Your task to perform on an android device: check google app version Image 0: 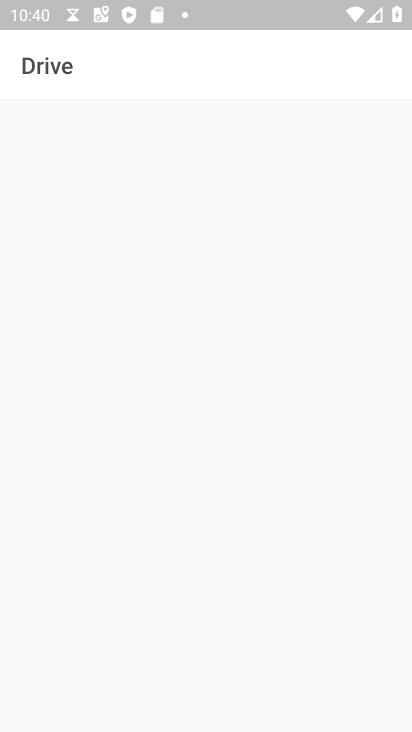
Step 0: press home button
Your task to perform on an android device: check google app version Image 1: 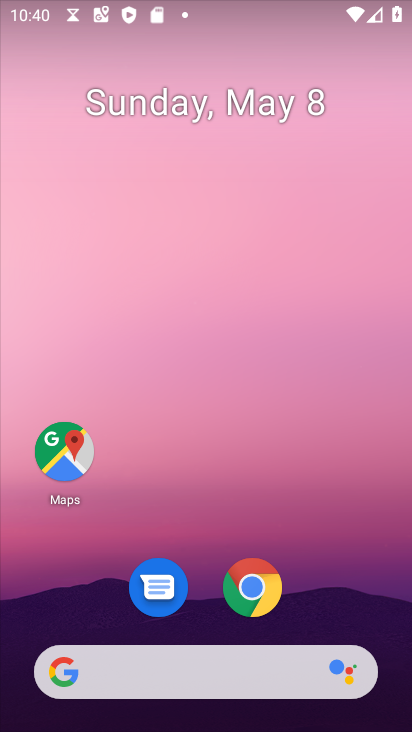
Step 1: drag from (337, 577) to (144, 184)
Your task to perform on an android device: check google app version Image 2: 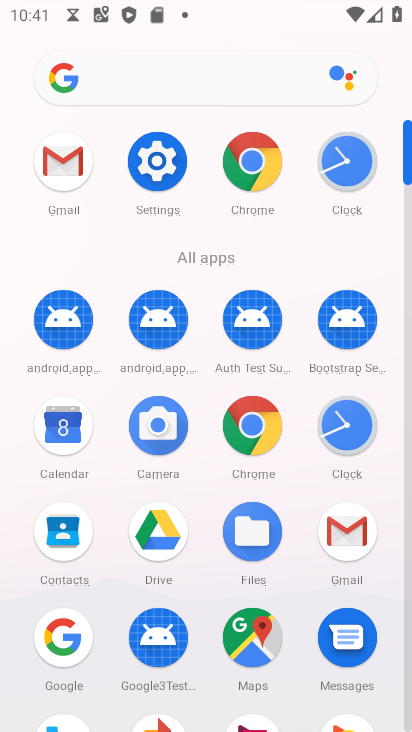
Step 2: click (54, 636)
Your task to perform on an android device: check google app version Image 3: 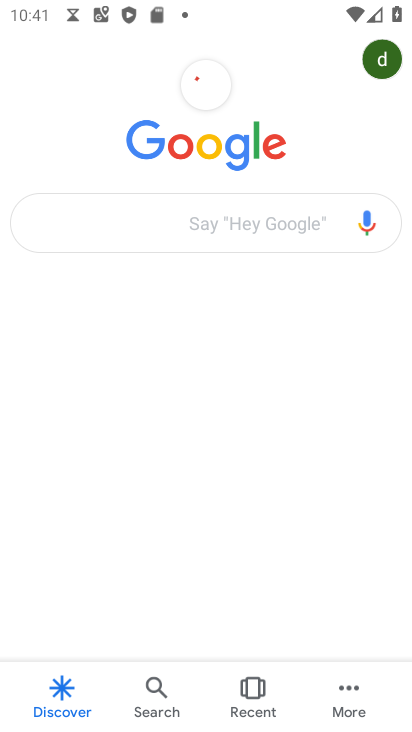
Step 3: click (347, 691)
Your task to perform on an android device: check google app version Image 4: 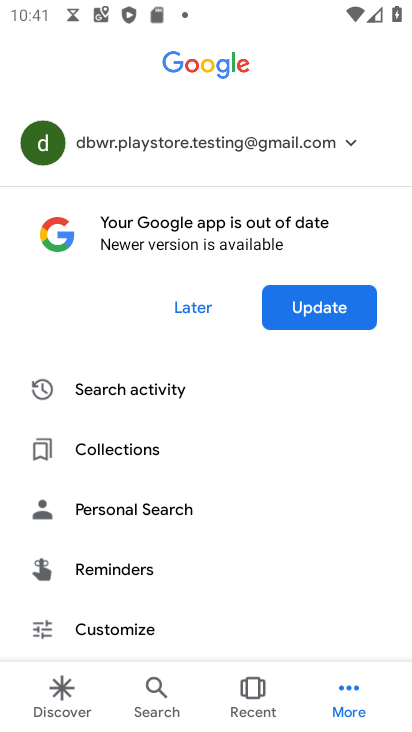
Step 4: drag from (168, 590) to (157, 376)
Your task to perform on an android device: check google app version Image 5: 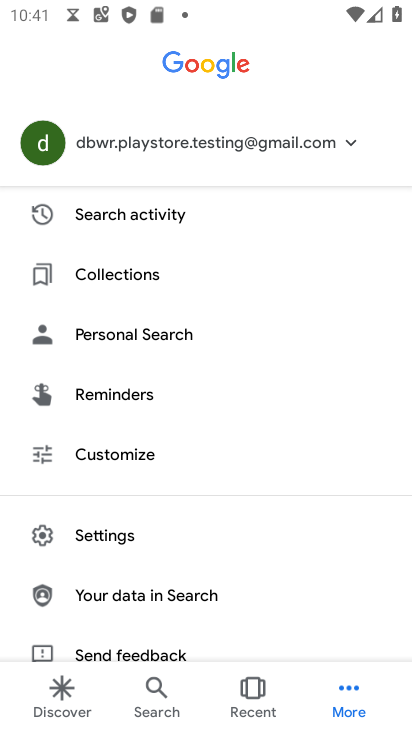
Step 5: click (105, 547)
Your task to perform on an android device: check google app version Image 6: 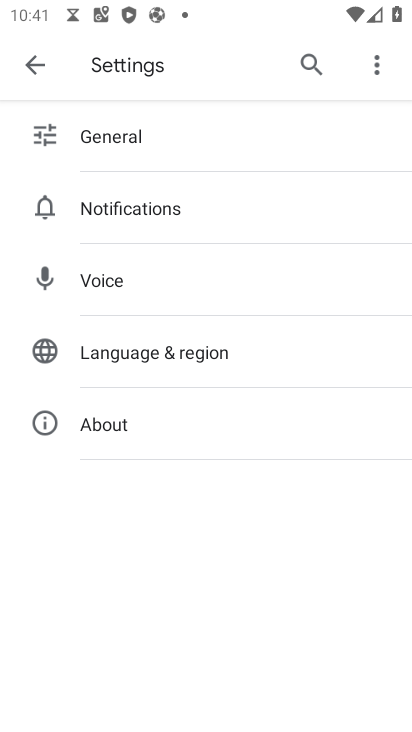
Step 6: click (142, 433)
Your task to perform on an android device: check google app version Image 7: 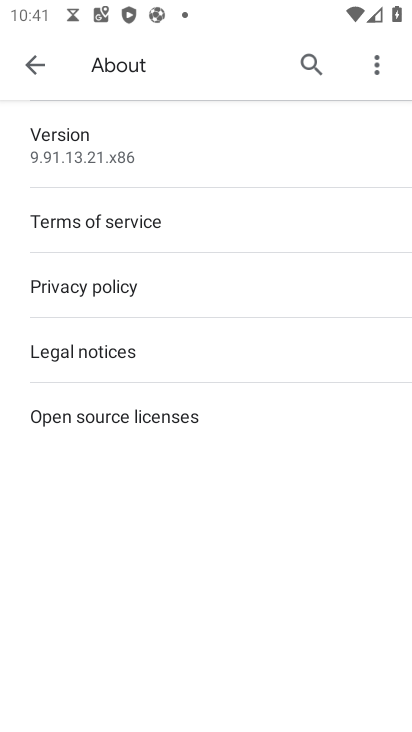
Step 7: task complete